Your task to perform on an android device: turn pop-ups off in chrome Image 0: 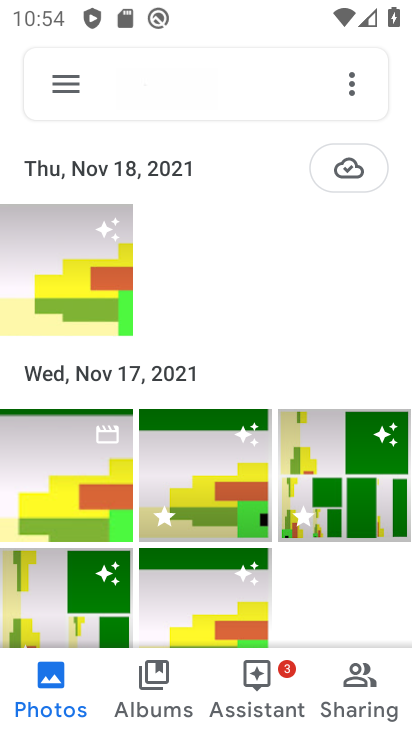
Step 0: press home button
Your task to perform on an android device: turn pop-ups off in chrome Image 1: 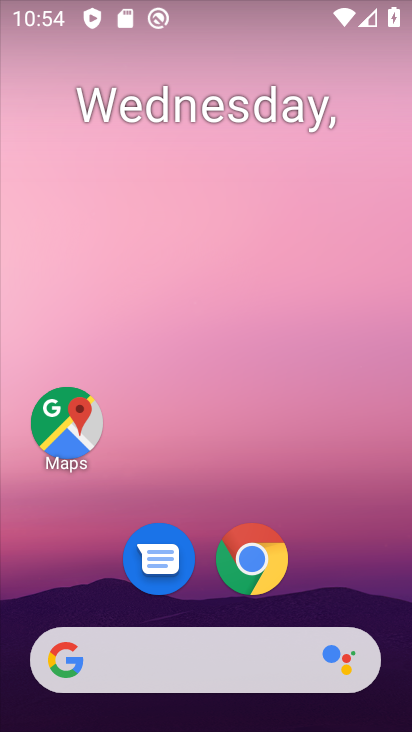
Step 1: drag from (332, 520) to (287, 0)
Your task to perform on an android device: turn pop-ups off in chrome Image 2: 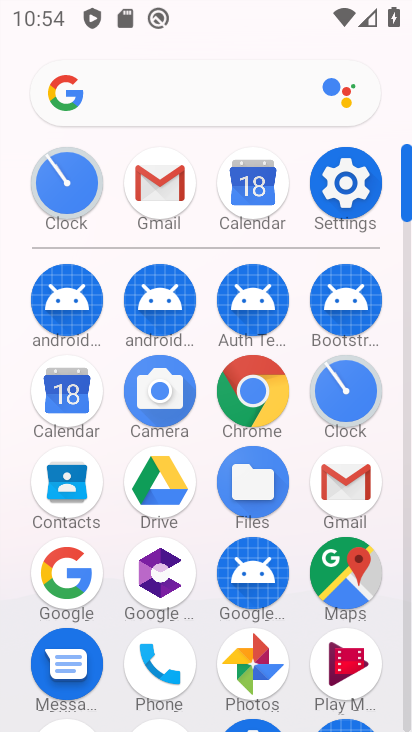
Step 2: click (244, 397)
Your task to perform on an android device: turn pop-ups off in chrome Image 3: 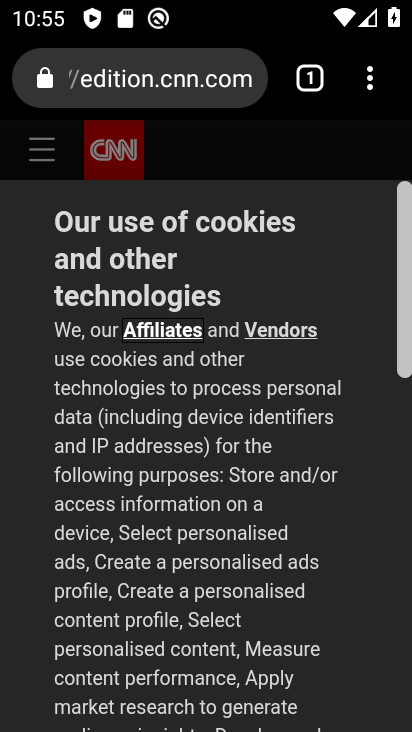
Step 3: drag from (380, 97) to (160, 617)
Your task to perform on an android device: turn pop-ups off in chrome Image 4: 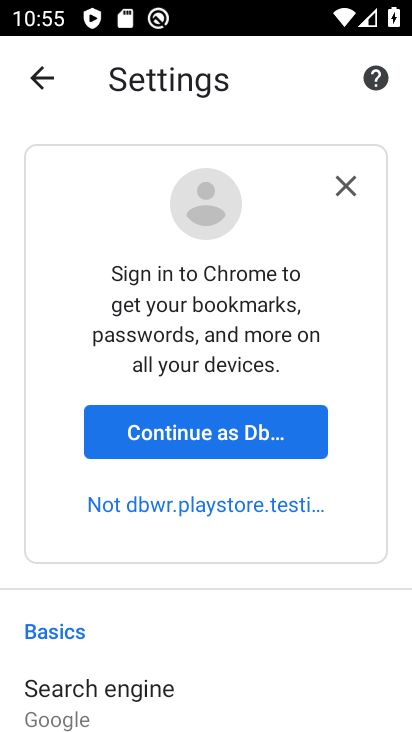
Step 4: drag from (91, 680) to (152, 265)
Your task to perform on an android device: turn pop-ups off in chrome Image 5: 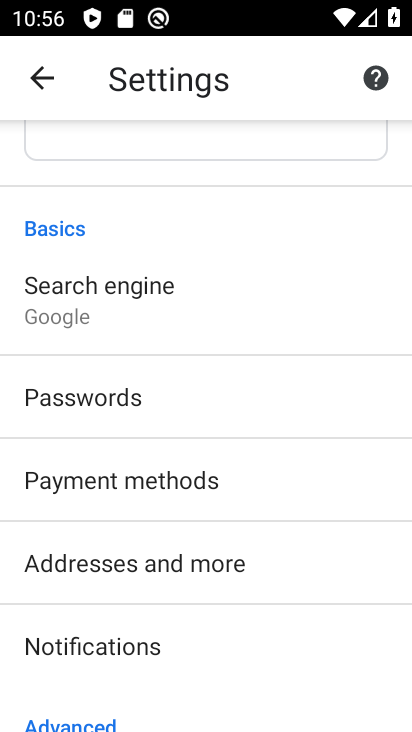
Step 5: drag from (180, 586) to (219, 254)
Your task to perform on an android device: turn pop-ups off in chrome Image 6: 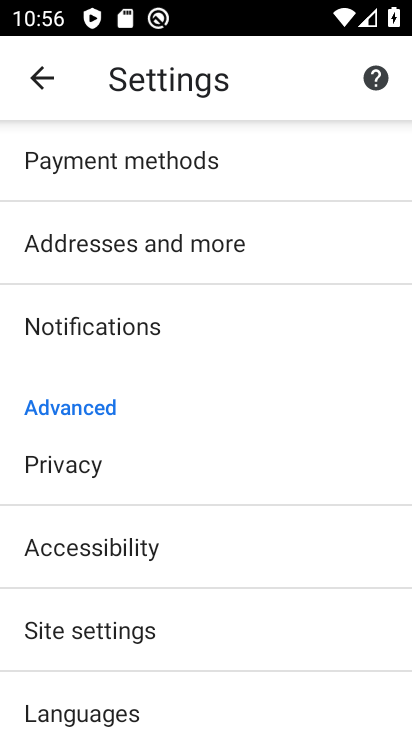
Step 6: drag from (211, 617) to (220, 249)
Your task to perform on an android device: turn pop-ups off in chrome Image 7: 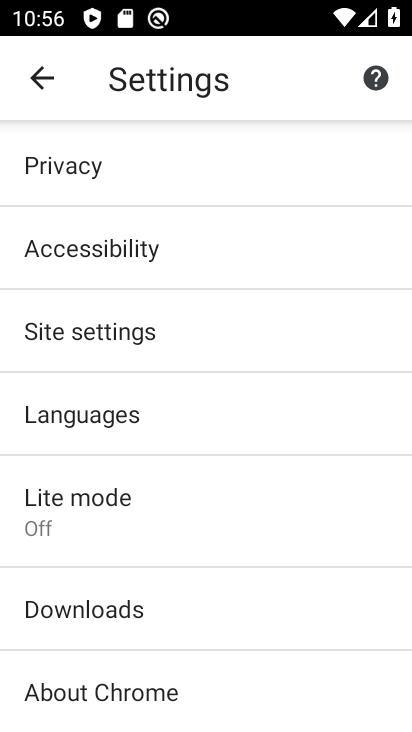
Step 7: click (138, 348)
Your task to perform on an android device: turn pop-ups off in chrome Image 8: 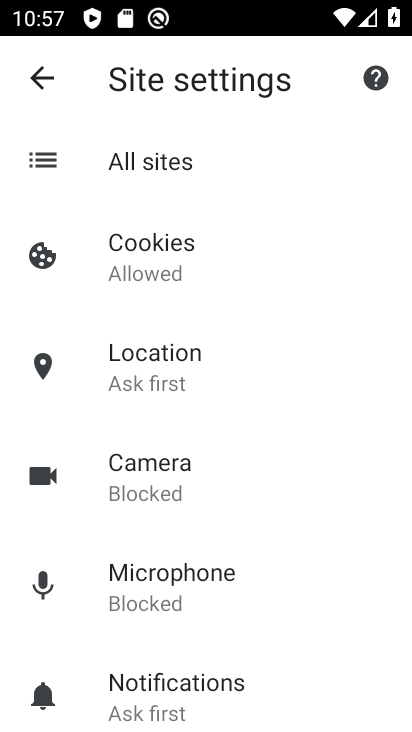
Step 8: drag from (214, 584) to (217, 223)
Your task to perform on an android device: turn pop-ups off in chrome Image 9: 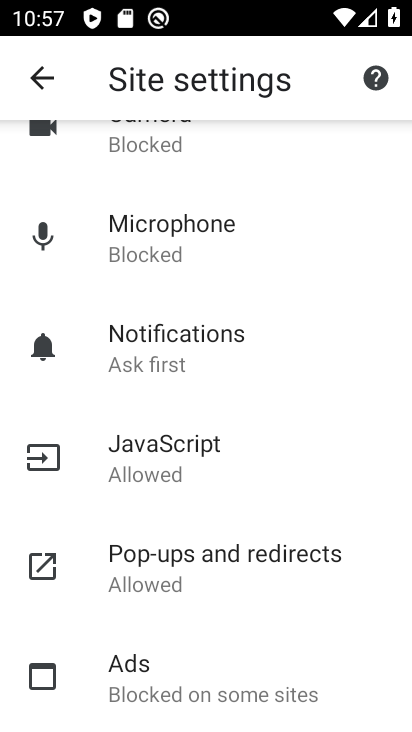
Step 9: click (211, 564)
Your task to perform on an android device: turn pop-ups off in chrome Image 10: 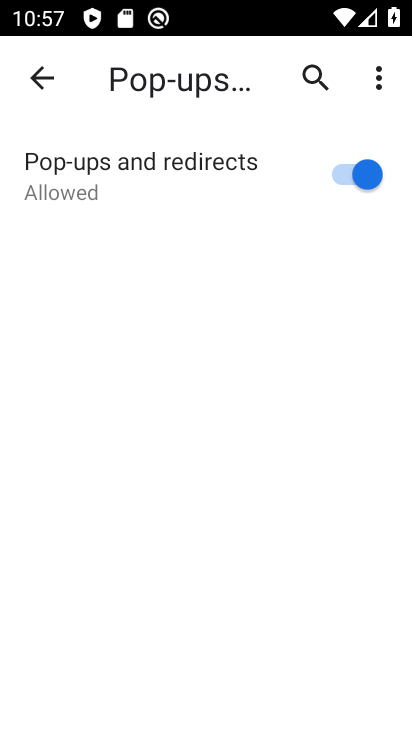
Step 10: click (361, 147)
Your task to perform on an android device: turn pop-ups off in chrome Image 11: 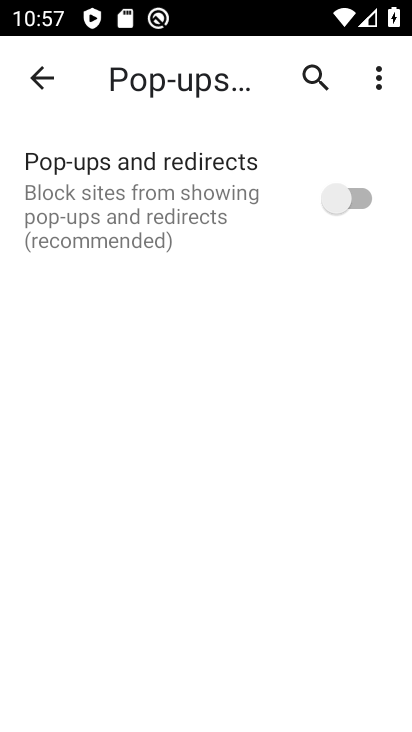
Step 11: task complete